Your task to perform on an android device: toggle show notifications on the lock screen Image 0: 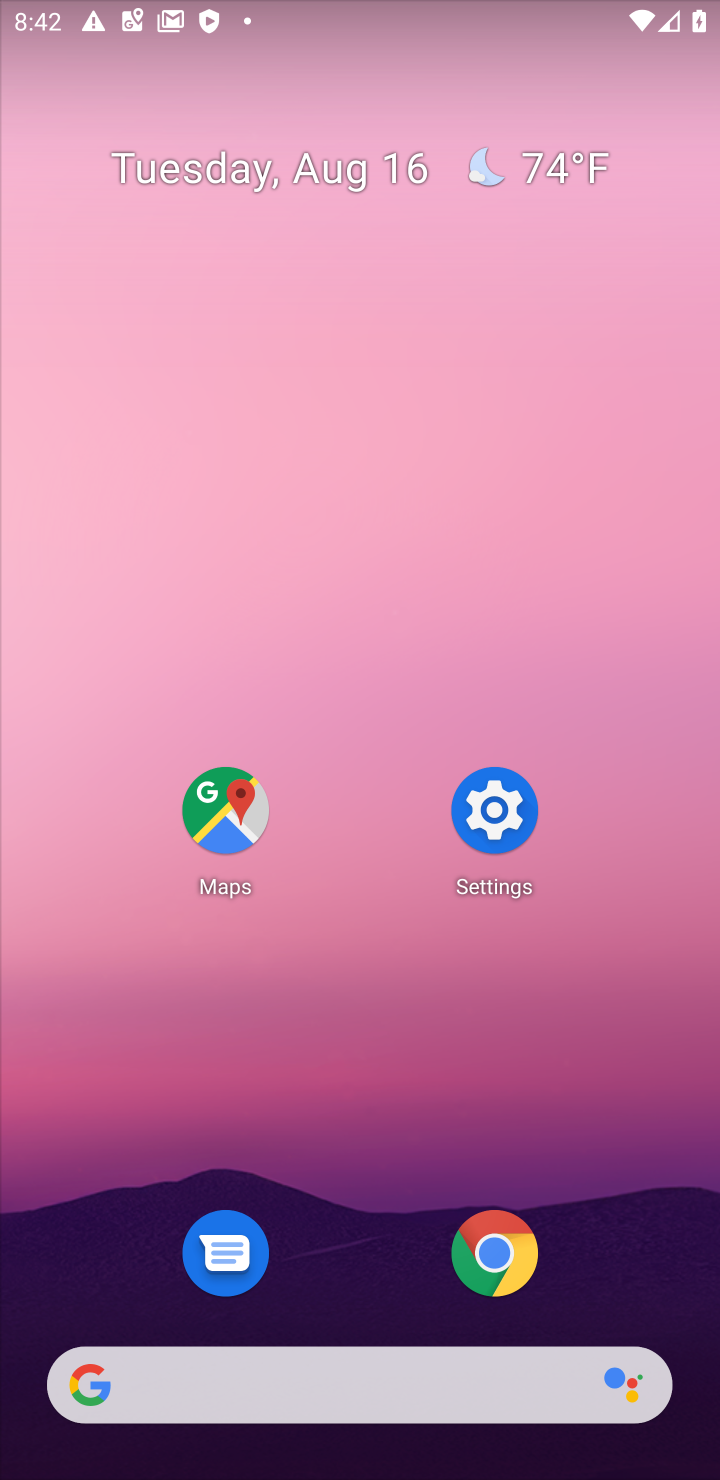
Step 0: press home button
Your task to perform on an android device: toggle show notifications on the lock screen Image 1: 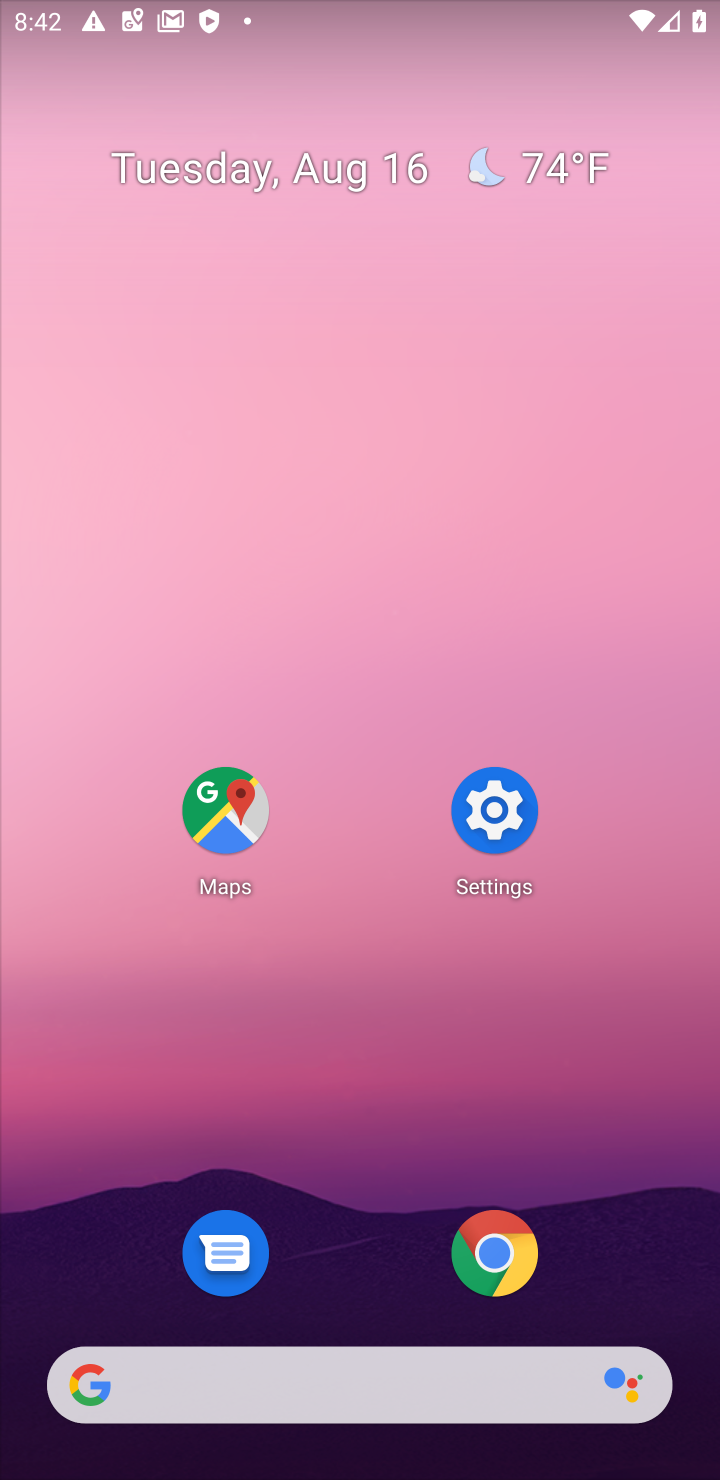
Step 1: click (501, 799)
Your task to perform on an android device: toggle show notifications on the lock screen Image 2: 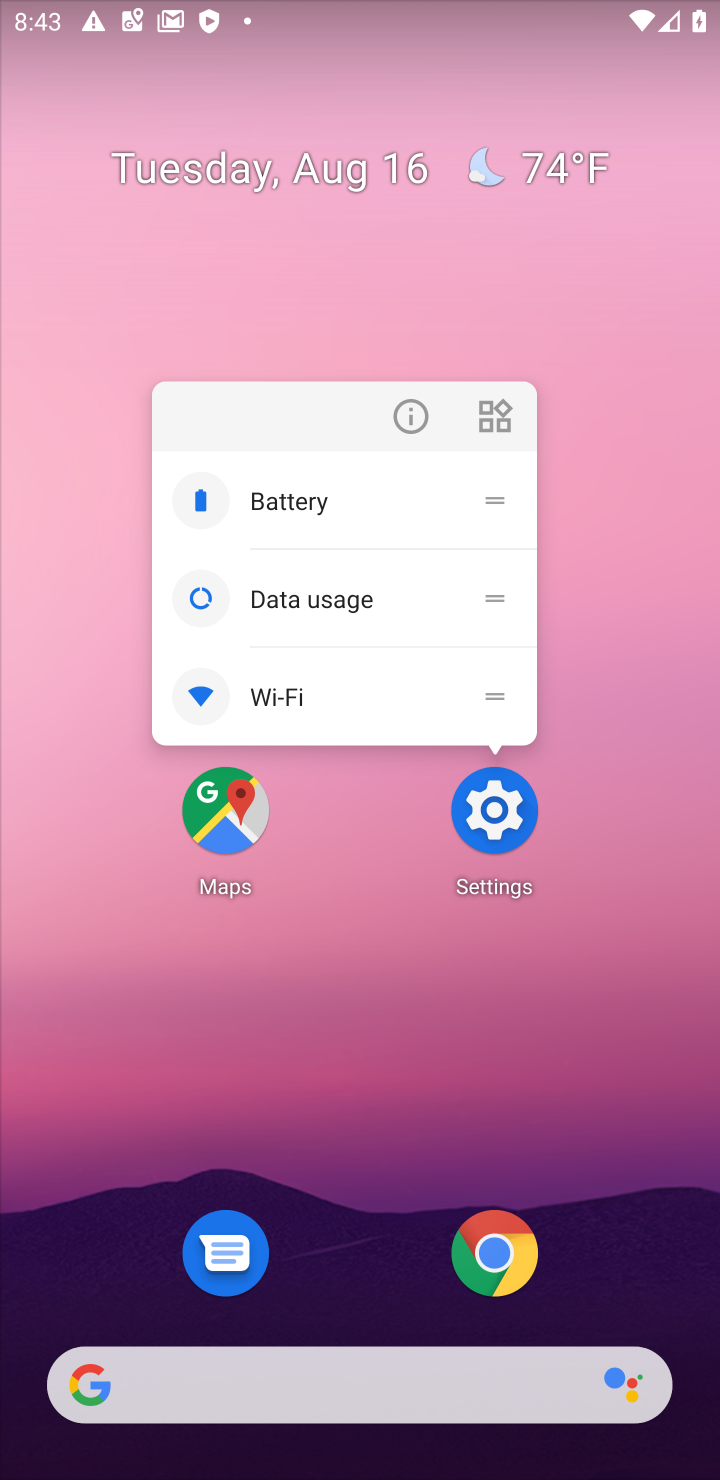
Step 2: click (498, 806)
Your task to perform on an android device: toggle show notifications on the lock screen Image 3: 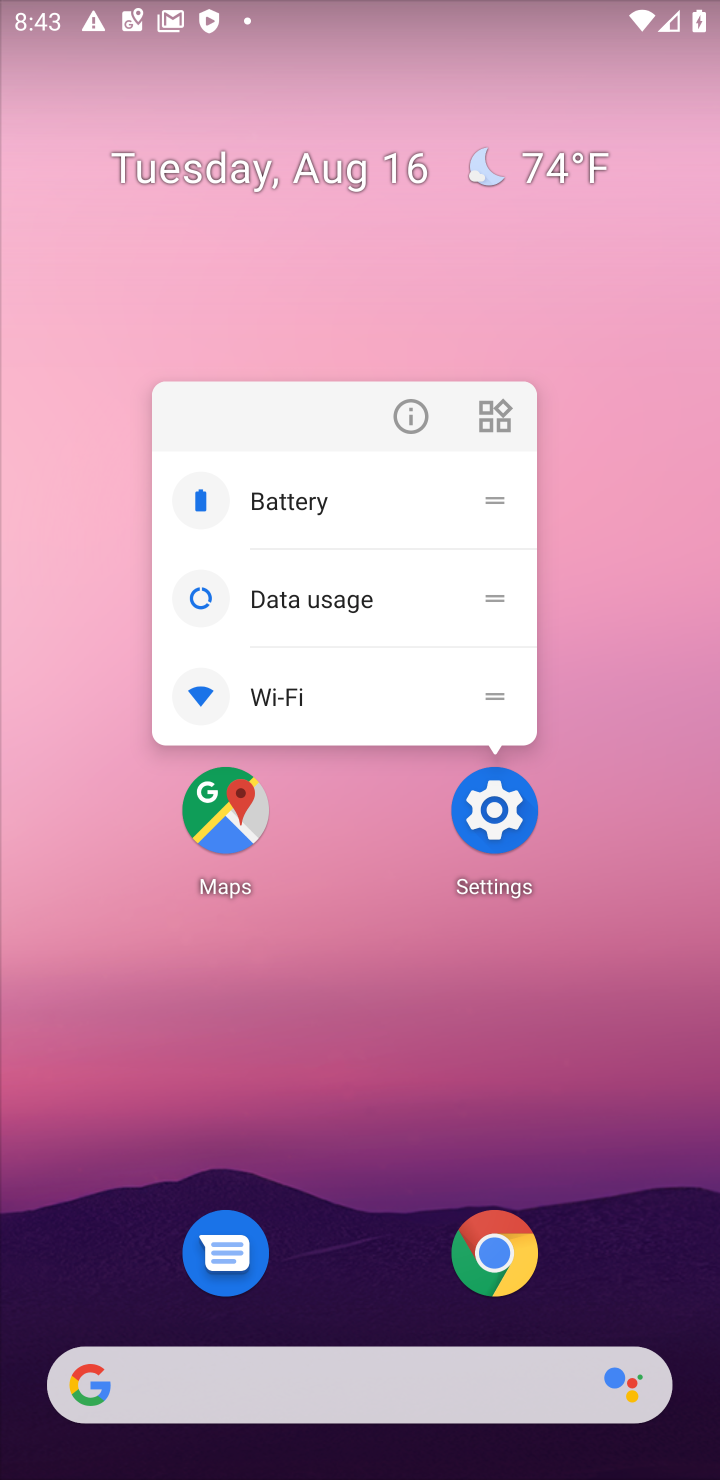
Step 3: click (498, 810)
Your task to perform on an android device: toggle show notifications on the lock screen Image 4: 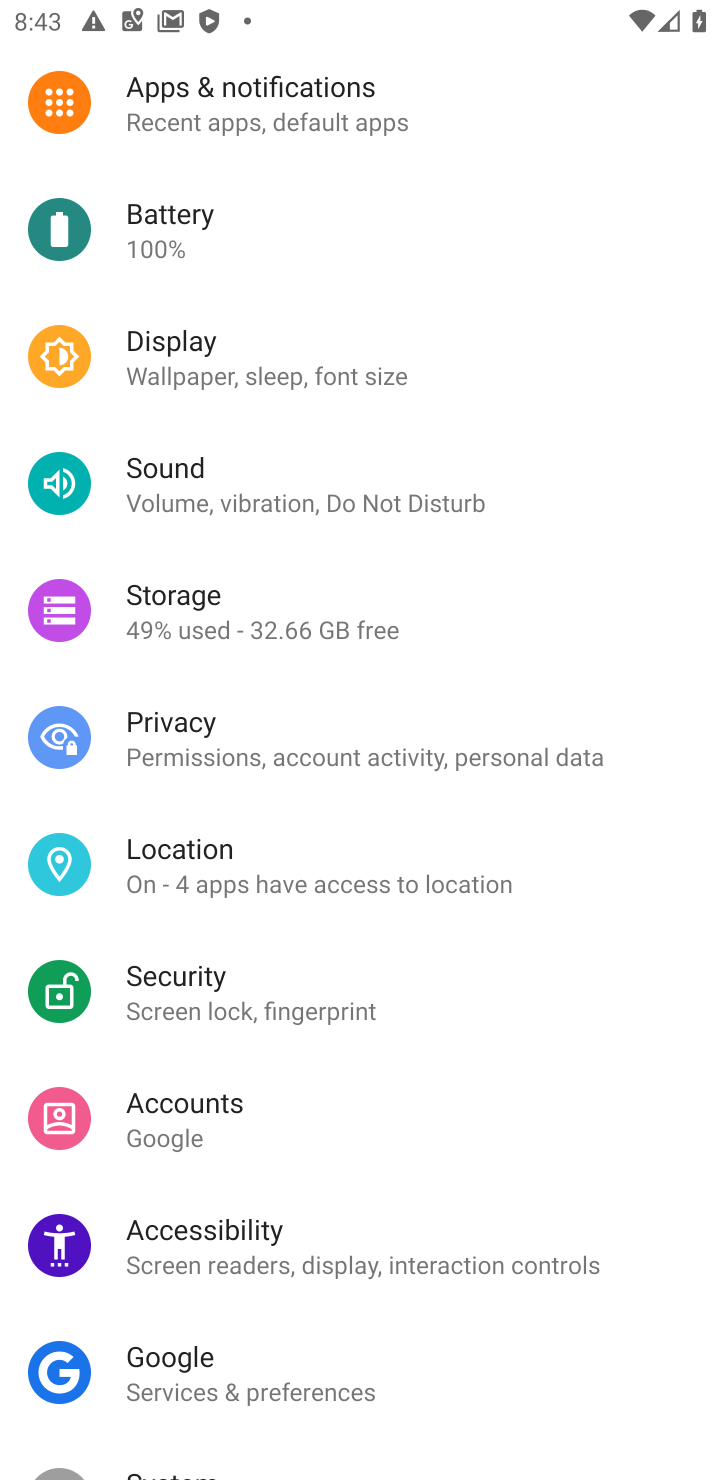
Step 4: click (275, 106)
Your task to perform on an android device: toggle show notifications on the lock screen Image 5: 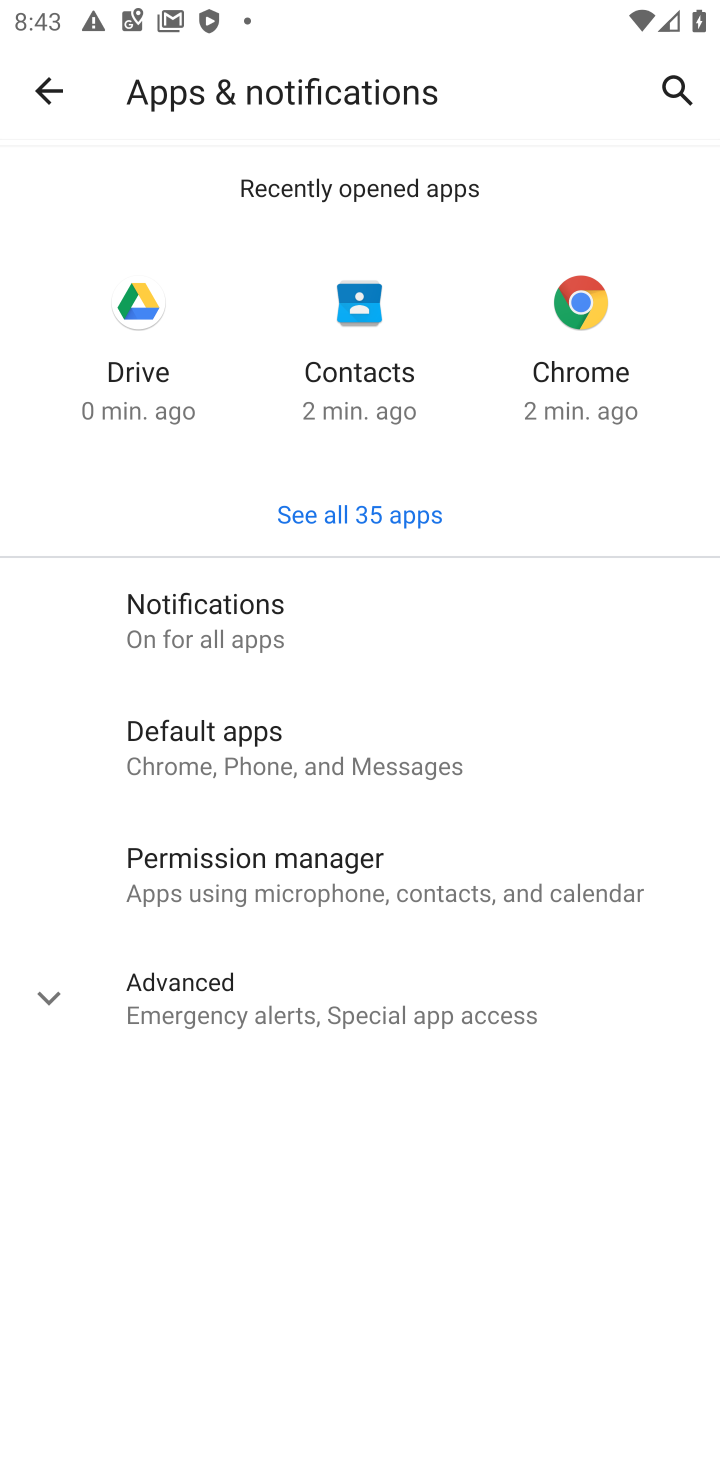
Step 5: click (244, 622)
Your task to perform on an android device: toggle show notifications on the lock screen Image 6: 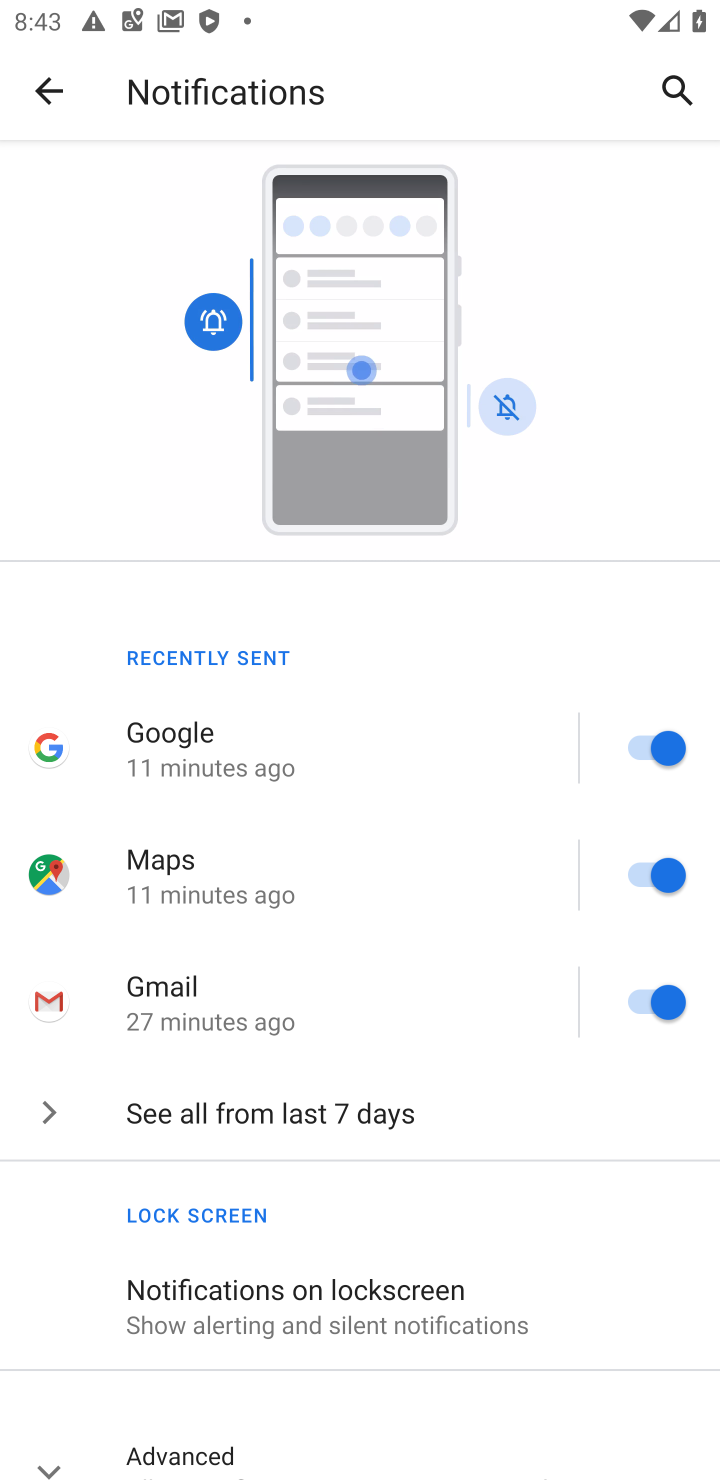
Step 6: click (365, 1305)
Your task to perform on an android device: toggle show notifications on the lock screen Image 7: 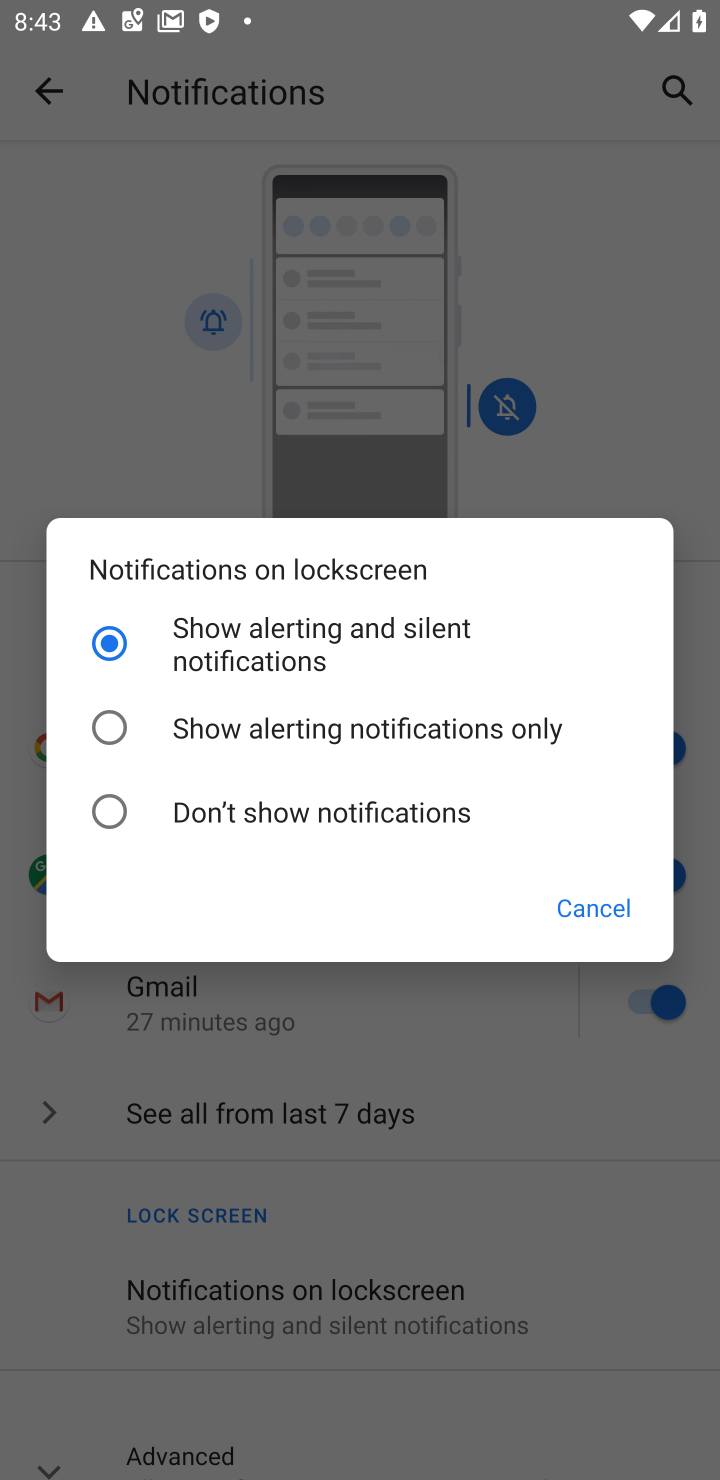
Step 7: click (106, 805)
Your task to perform on an android device: toggle show notifications on the lock screen Image 8: 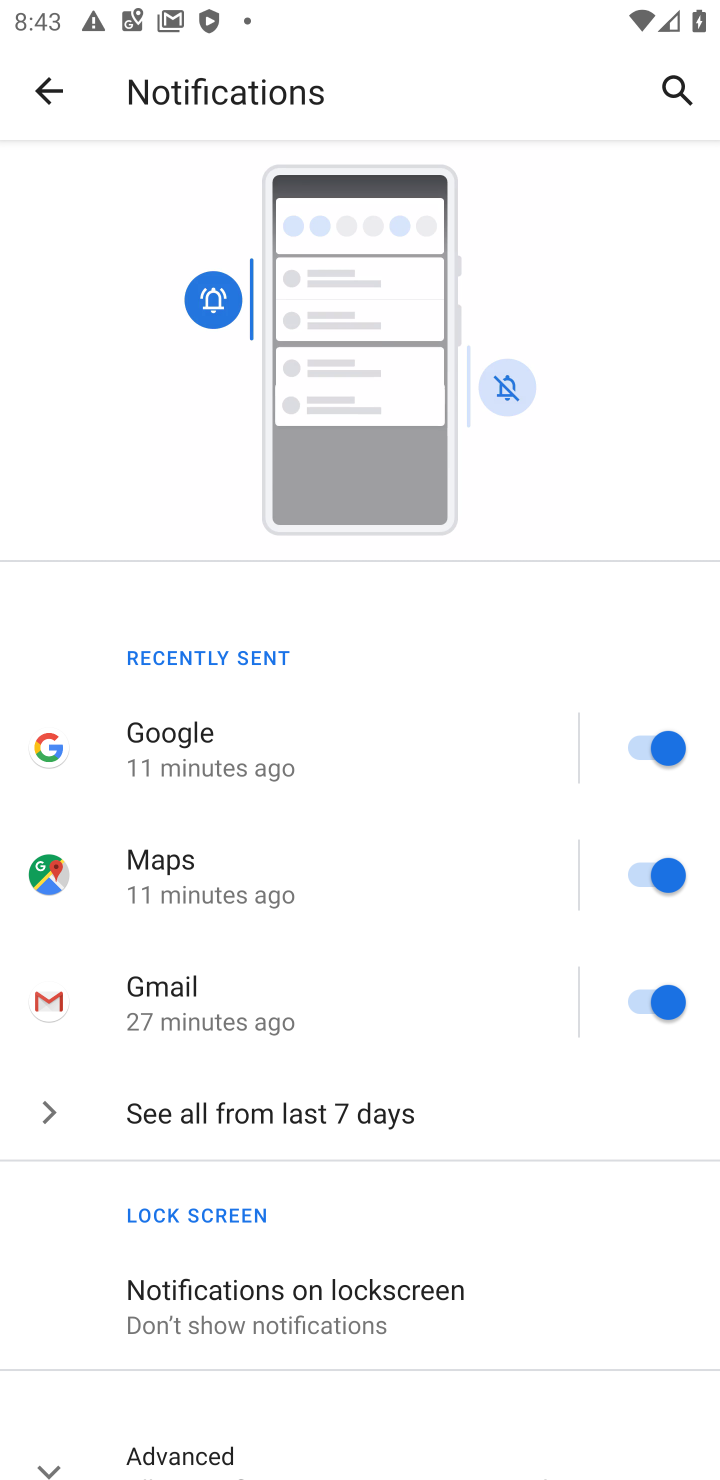
Step 8: task complete